Your task to perform on an android device: Go to settings Image 0: 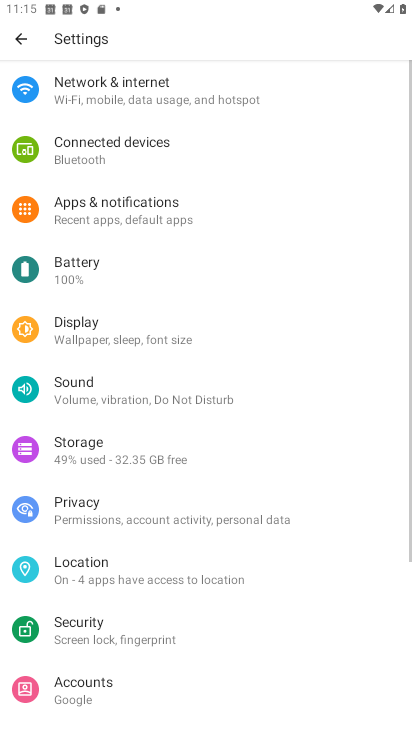
Step 0: drag from (289, 143) to (235, 714)
Your task to perform on an android device: Go to settings Image 1: 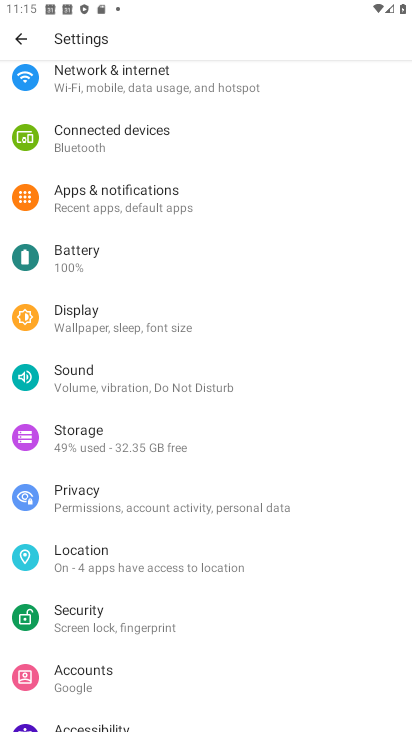
Step 1: click (204, 77)
Your task to perform on an android device: Go to settings Image 2: 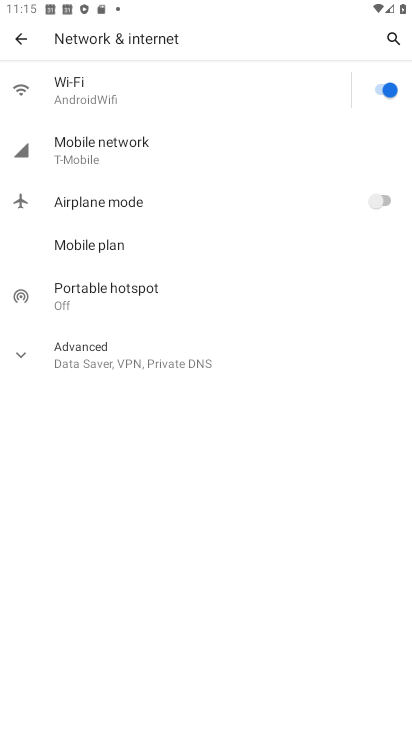
Step 2: task complete